Your task to perform on an android device: add a label to a message in the gmail app Image 0: 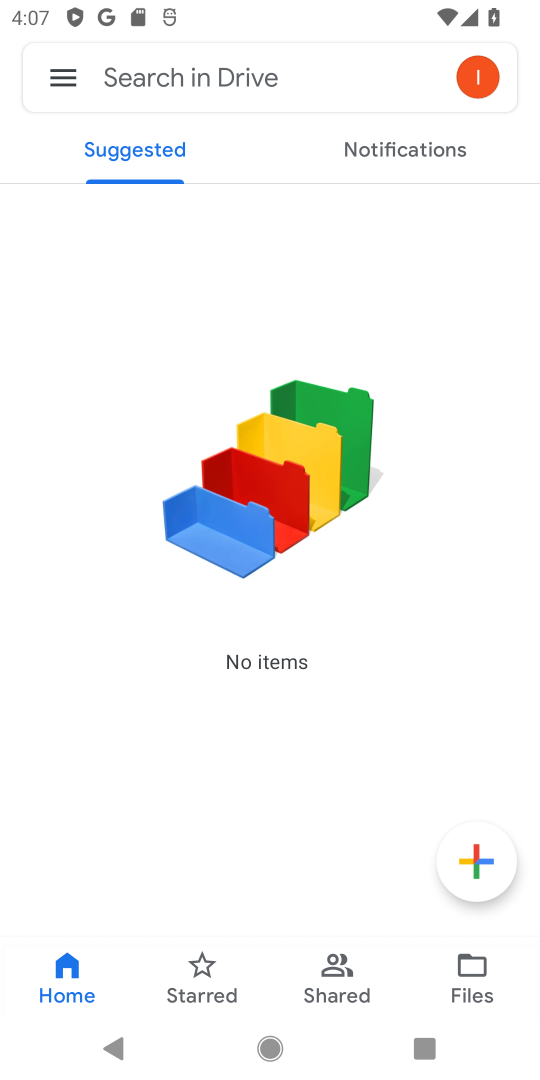
Step 0: press home button
Your task to perform on an android device: add a label to a message in the gmail app Image 1: 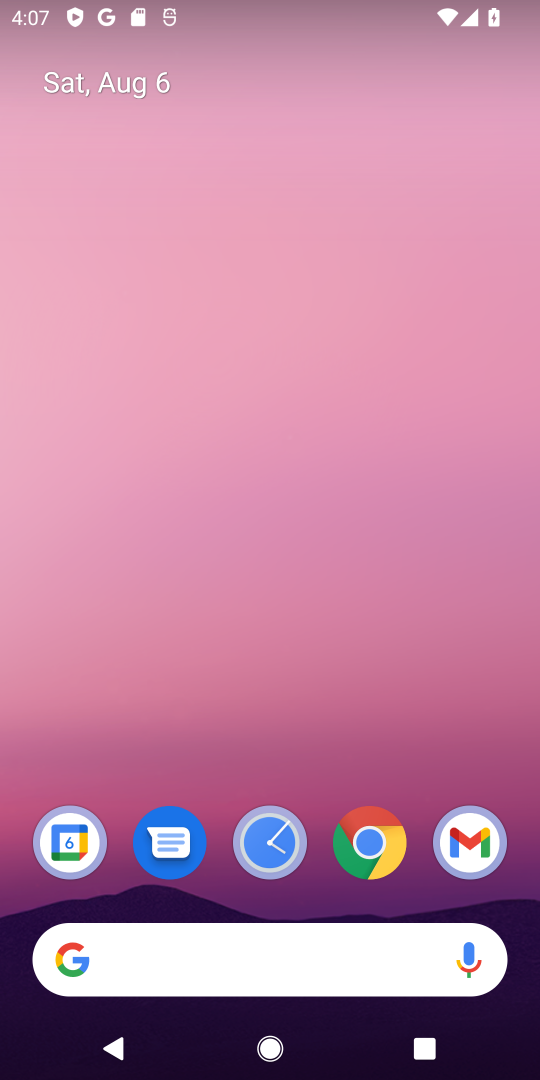
Step 1: drag from (516, 1050) to (507, 912)
Your task to perform on an android device: add a label to a message in the gmail app Image 2: 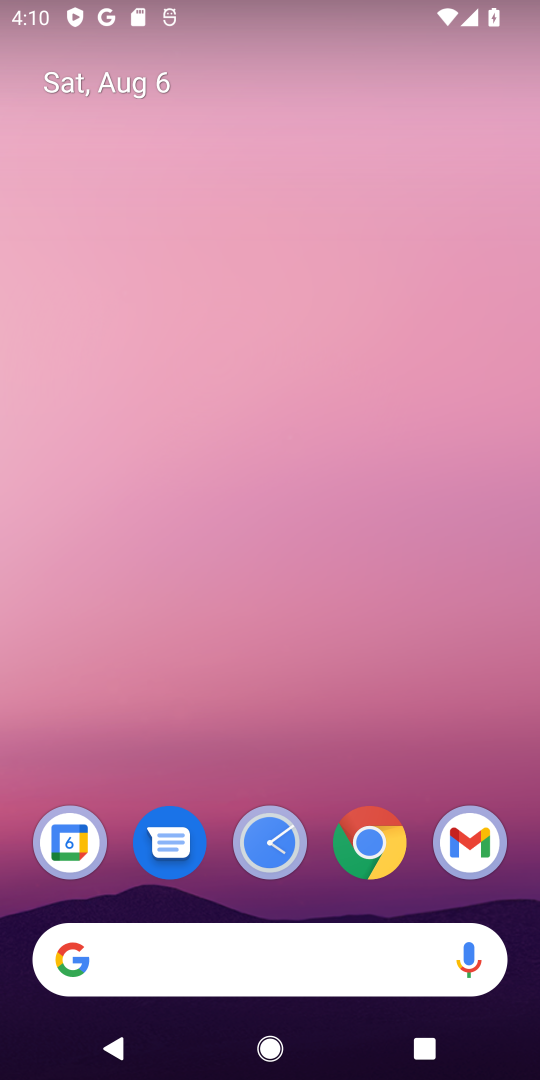
Step 2: click (467, 850)
Your task to perform on an android device: add a label to a message in the gmail app Image 3: 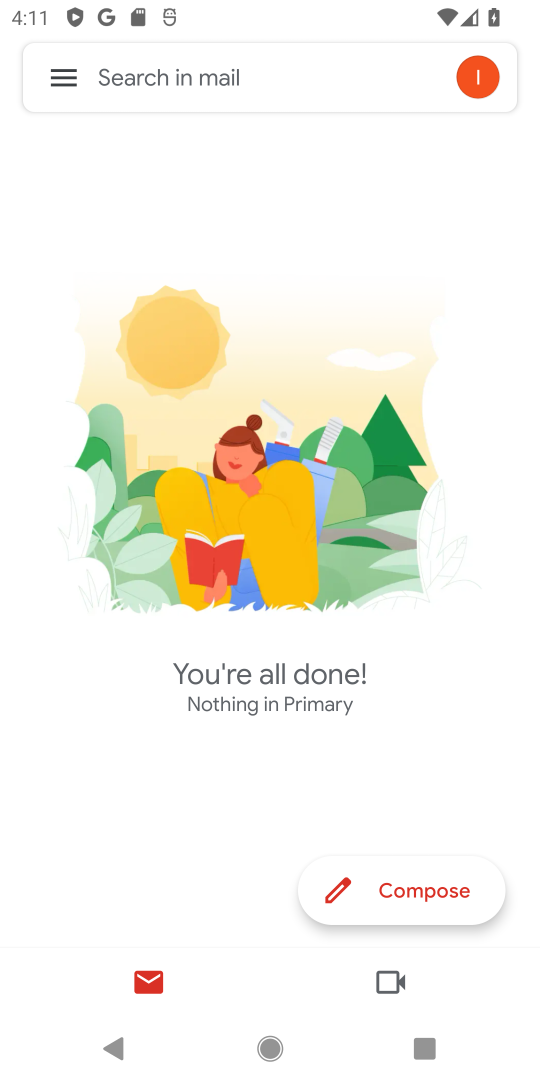
Step 3: task complete